Your task to perform on an android device: toggle show notifications on the lock screen Image 0: 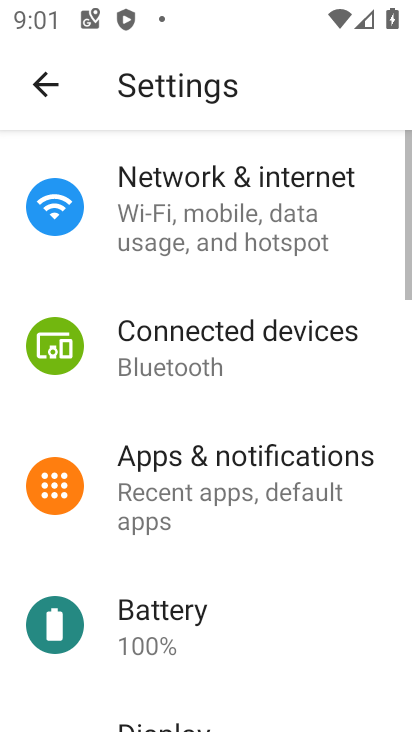
Step 0: click (258, 492)
Your task to perform on an android device: toggle show notifications on the lock screen Image 1: 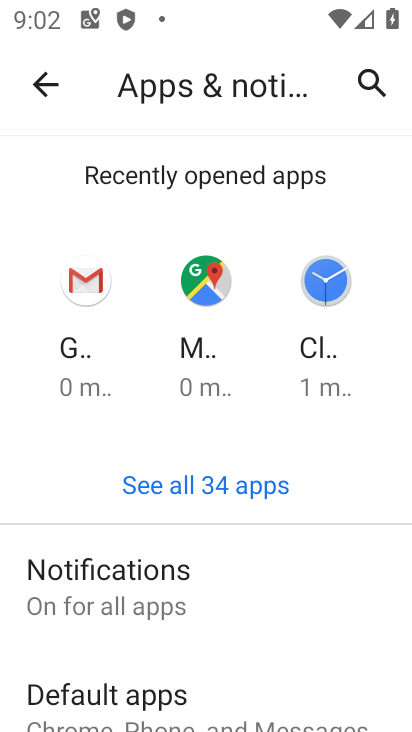
Step 1: click (153, 616)
Your task to perform on an android device: toggle show notifications on the lock screen Image 2: 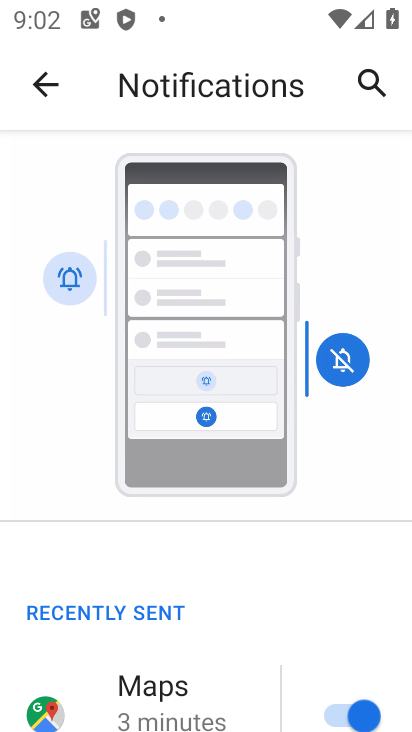
Step 2: drag from (249, 651) to (403, 111)
Your task to perform on an android device: toggle show notifications on the lock screen Image 3: 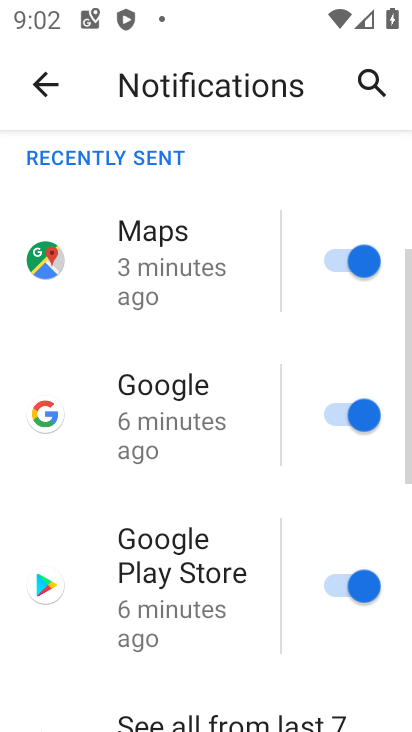
Step 3: drag from (243, 467) to (370, 98)
Your task to perform on an android device: toggle show notifications on the lock screen Image 4: 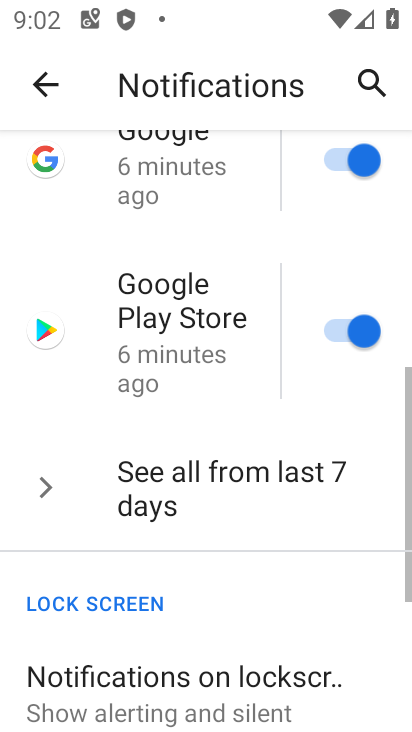
Step 4: drag from (224, 608) to (350, 132)
Your task to perform on an android device: toggle show notifications on the lock screen Image 5: 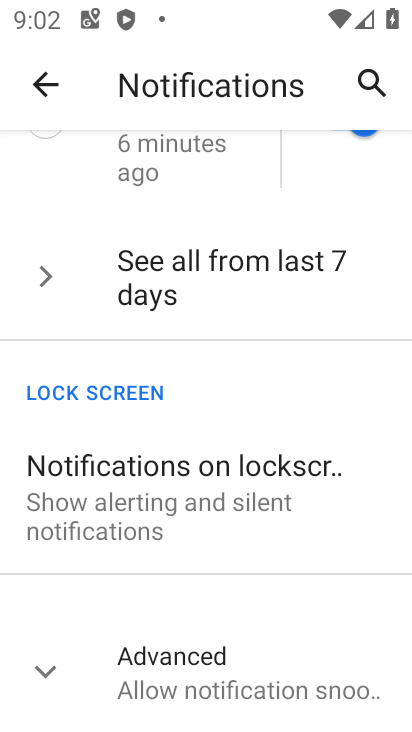
Step 5: click (205, 491)
Your task to perform on an android device: toggle show notifications on the lock screen Image 6: 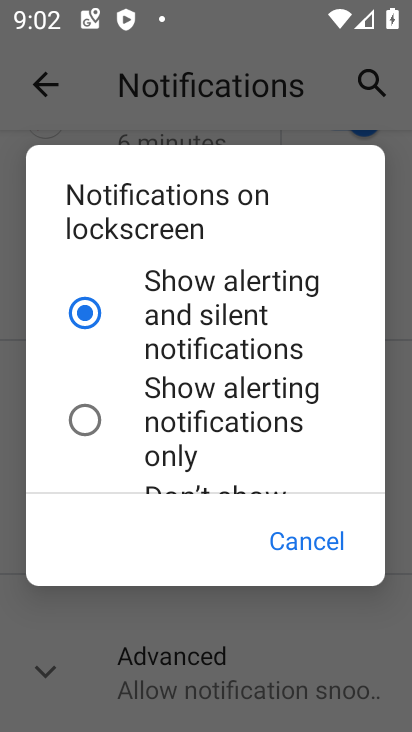
Step 6: drag from (200, 504) to (317, 194)
Your task to perform on an android device: toggle show notifications on the lock screen Image 7: 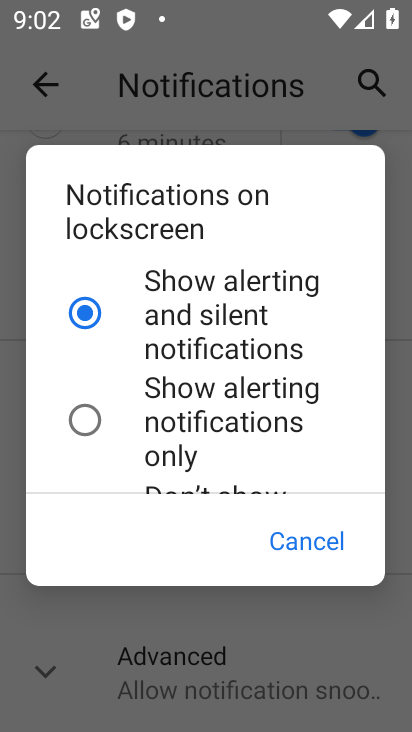
Step 7: drag from (186, 439) to (273, 126)
Your task to perform on an android device: toggle show notifications on the lock screen Image 8: 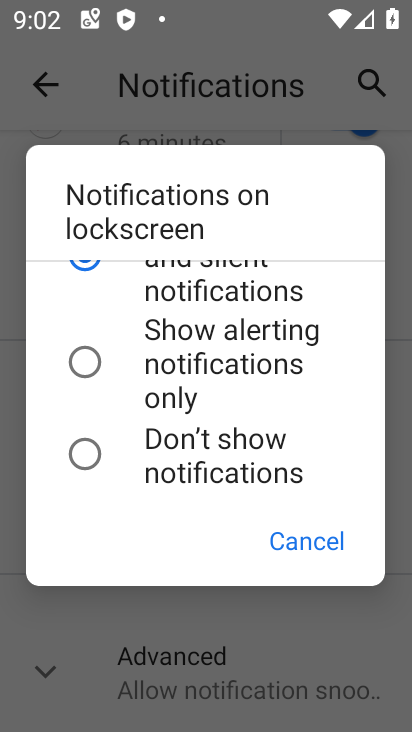
Step 8: click (180, 450)
Your task to perform on an android device: toggle show notifications on the lock screen Image 9: 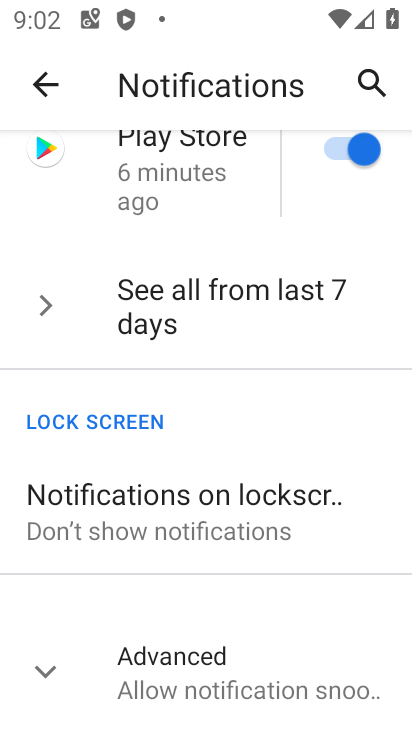
Step 9: task complete